Your task to perform on an android device: Is it going to rain this weekend? Image 0: 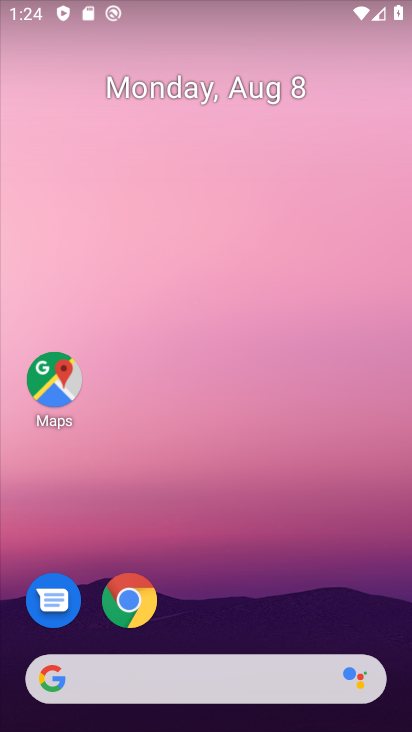
Step 0: press home button
Your task to perform on an android device: Is it going to rain this weekend? Image 1: 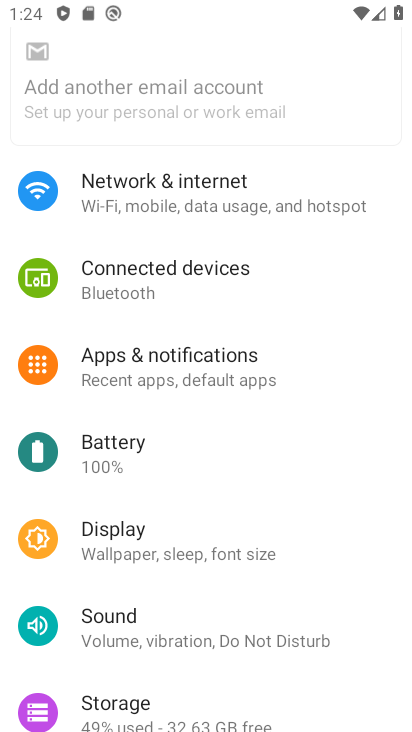
Step 1: drag from (378, 339) to (386, 150)
Your task to perform on an android device: Is it going to rain this weekend? Image 2: 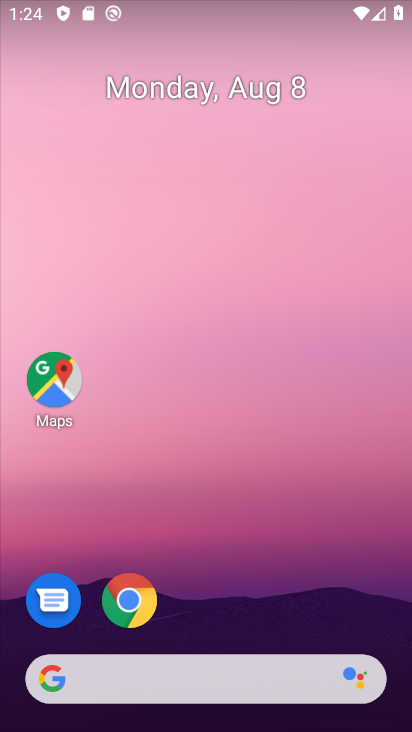
Step 2: drag from (404, 647) to (297, 47)
Your task to perform on an android device: Is it going to rain this weekend? Image 3: 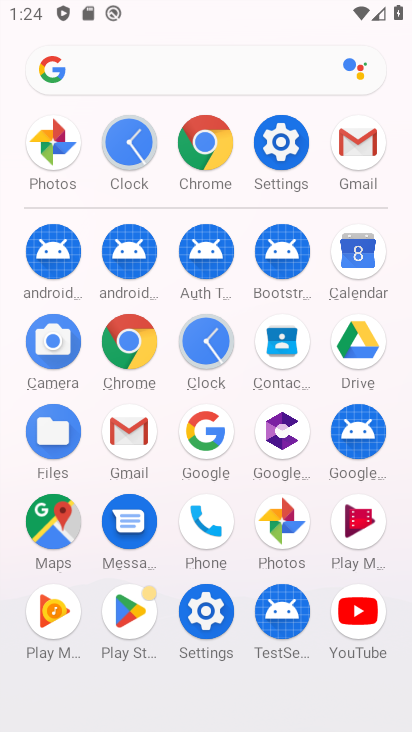
Step 3: click (118, 346)
Your task to perform on an android device: Is it going to rain this weekend? Image 4: 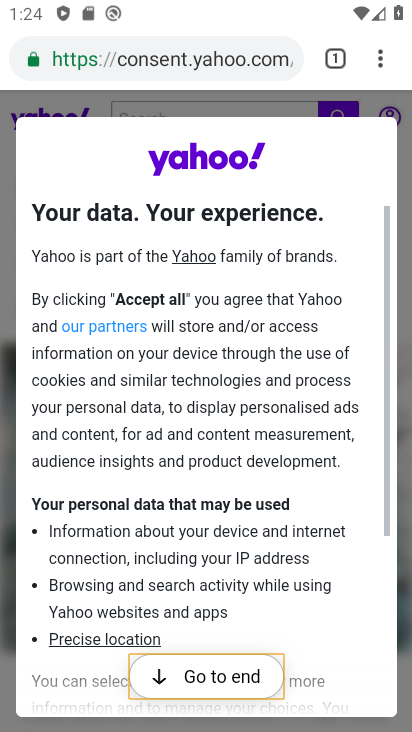
Step 4: click (155, 56)
Your task to perform on an android device: Is it going to rain this weekend? Image 5: 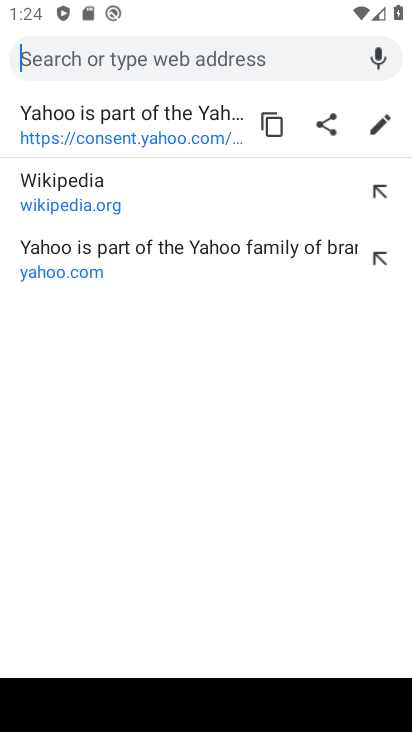
Step 5: type "Is it going to rain this weekend?"
Your task to perform on an android device: Is it going to rain this weekend? Image 6: 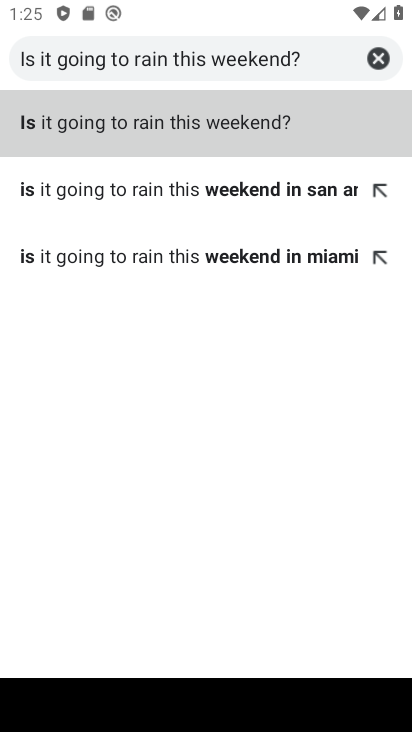
Step 6: click (287, 122)
Your task to perform on an android device: Is it going to rain this weekend? Image 7: 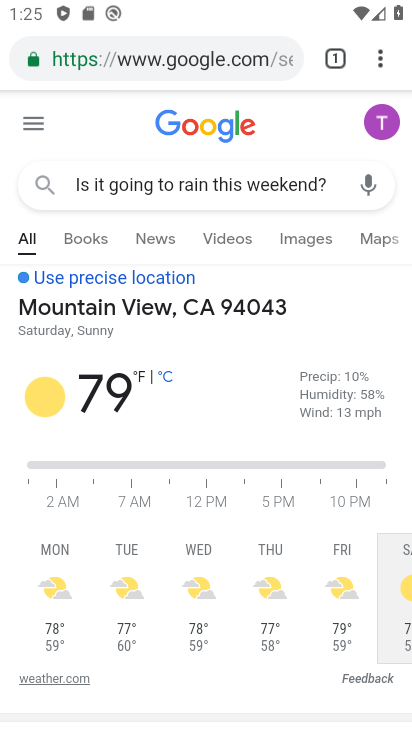
Step 7: task complete